Your task to perform on an android device: Go to internet settings Image 0: 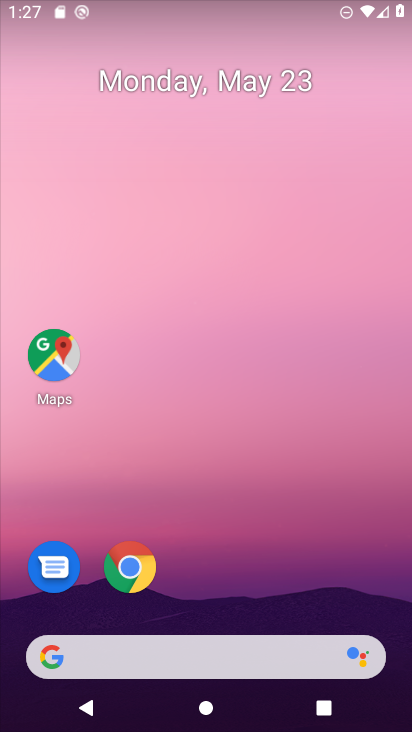
Step 0: drag from (249, 565) to (239, 147)
Your task to perform on an android device: Go to internet settings Image 1: 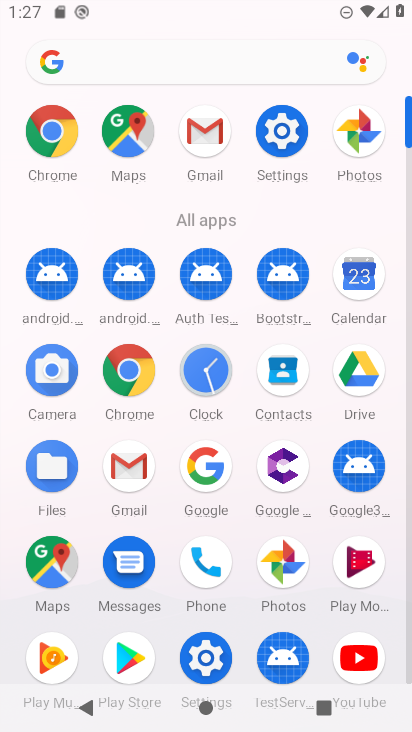
Step 1: click (221, 657)
Your task to perform on an android device: Go to internet settings Image 2: 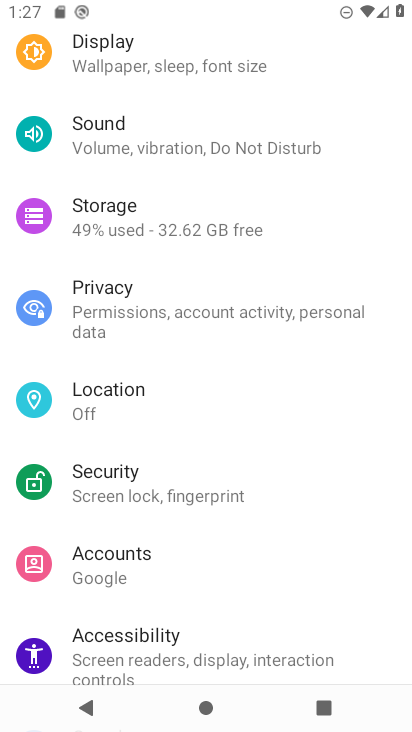
Step 2: drag from (216, 93) to (90, 718)
Your task to perform on an android device: Go to internet settings Image 3: 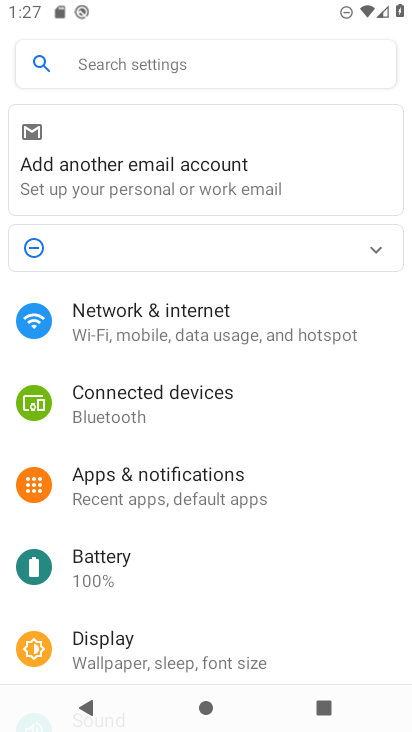
Step 3: click (98, 320)
Your task to perform on an android device: Go to internet settings Image 4: 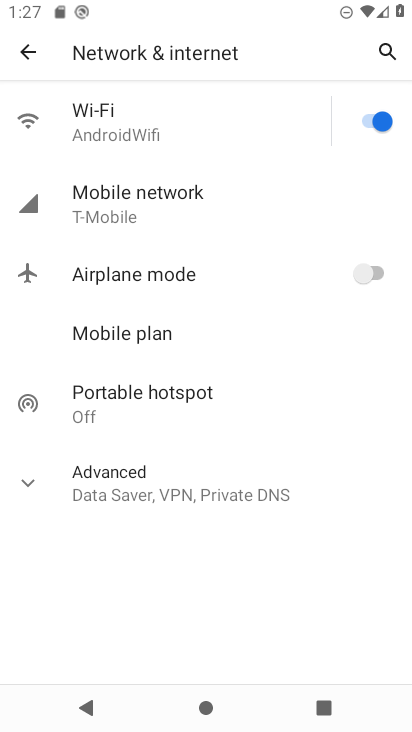
Step 4: task complete